Your task to perform on an android device: refresh tabs in the chrome app Image 0: 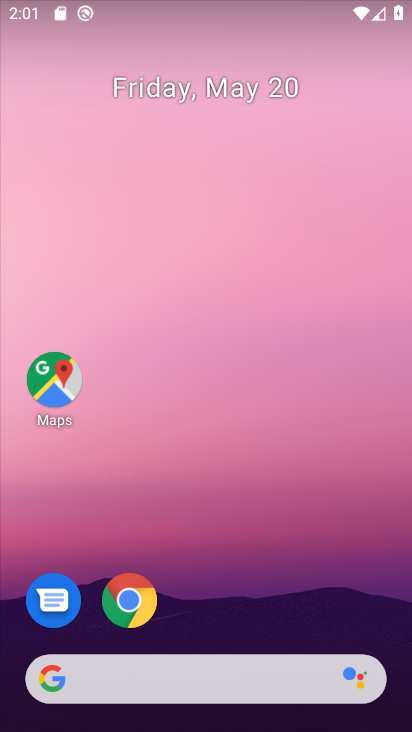
Step 0: click (142, 598)
Your task to perform on an android device: refresh tabs in the chrome app Image 1: 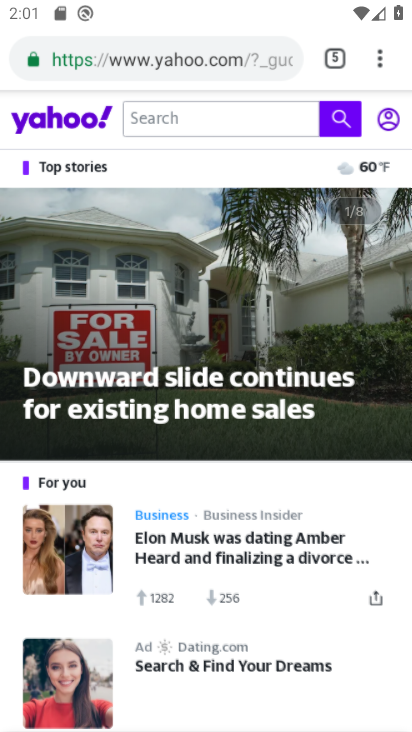
Step 1: click (372, 54)
Your task to perform on an android device: refresh tabs in the chrome app Image 2: 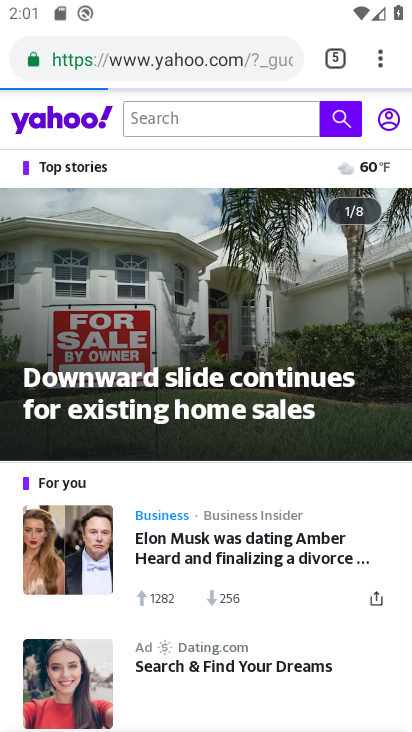
Step 2: click (370, 49)
Your task to perform on an android device: refresh tabs in the chrome app Image 3: 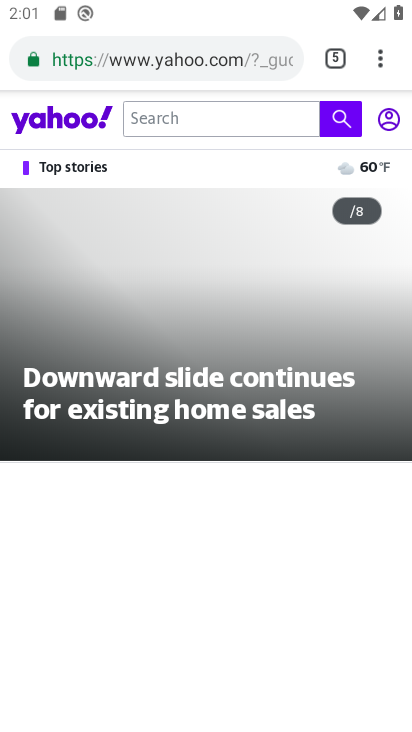
Step 3: task complete